Your task to perform on an android device: Go to Android settings Image 0: 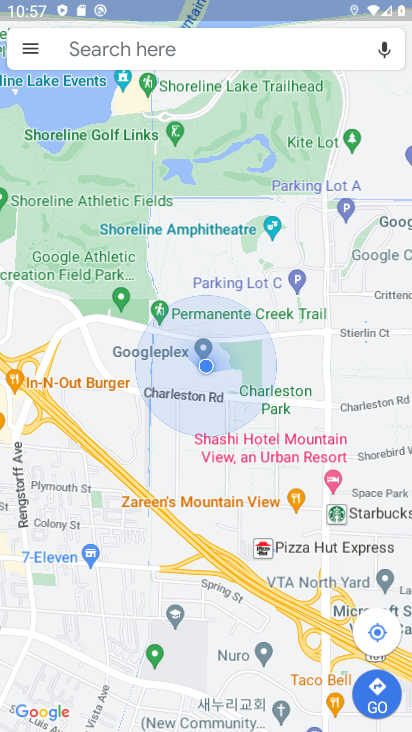
Step 0: drag from (149, 493) to (189, 212)
Your task to perform on an android device: Go to Android settings Image 1: 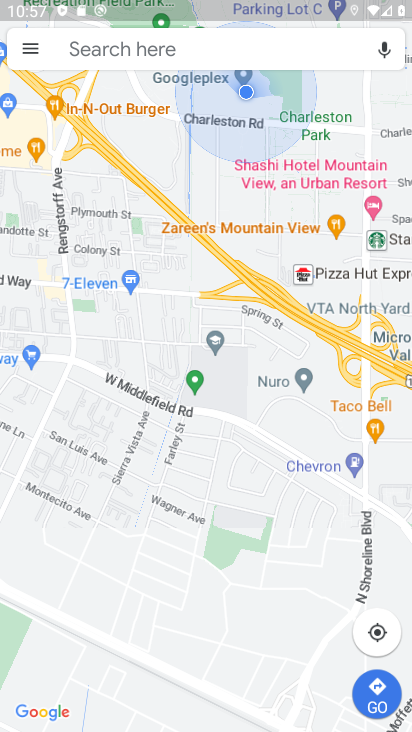
Step 1: press home button
Your task to perform on an android device: Go to Android settings Image 2: 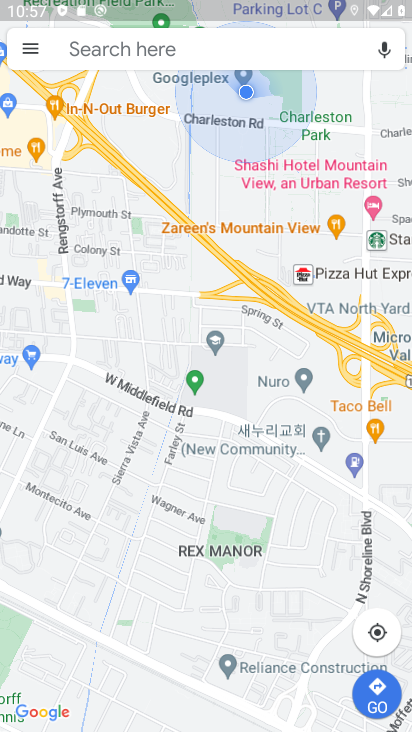
Step 2: press home button
Your task to perform on an android device: Go to Android settings Image 3: 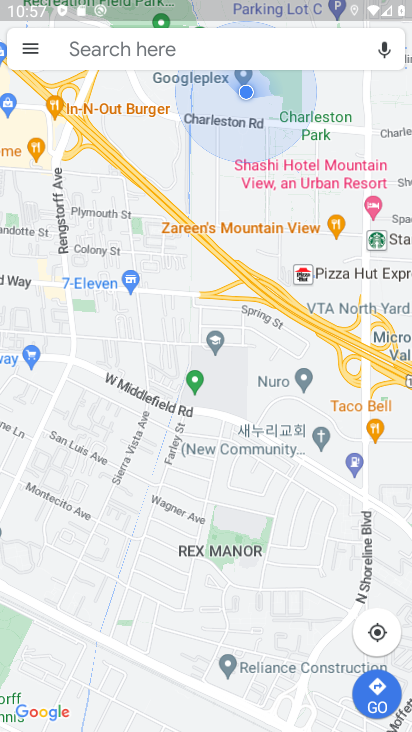
Step 3: click (301, 202)
Your task to perform on an android device: Go to Android settings Image 4: 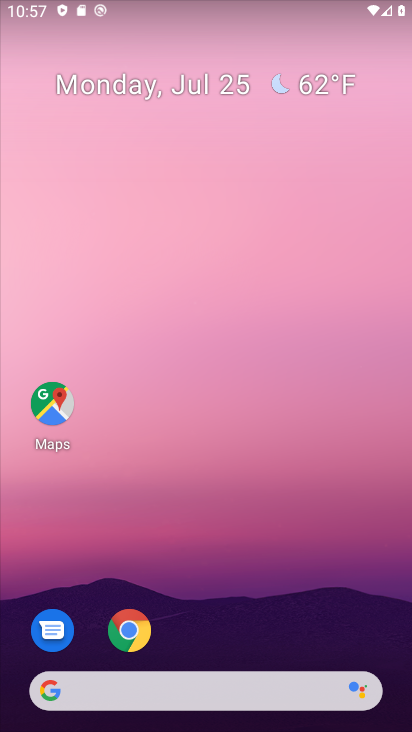
Step 4: drag from (242, 566) to (293, 236)
Your task to perform on an android device: Go to Android settings Image 5: 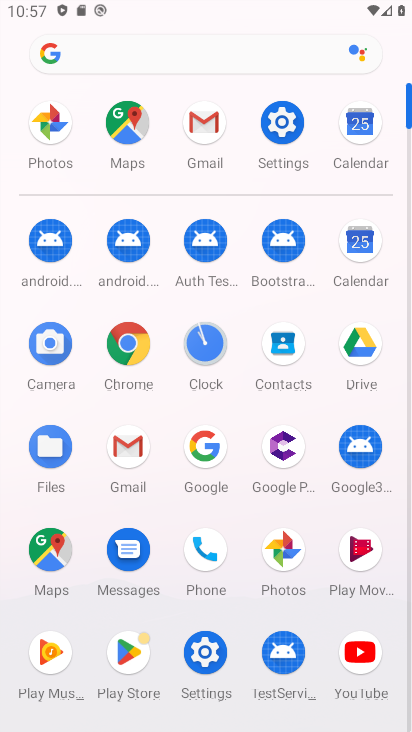
Step 5: click (288, 134)
Your task to perform on an android device: Go to Android settings Image 6: 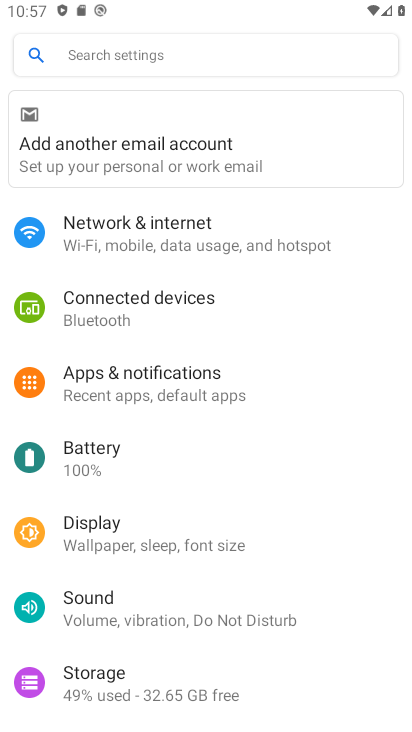
Step 6: drag from (199, 573) to (222, 94)
Your task to perform on an android device: Go to Android settings Image 7: 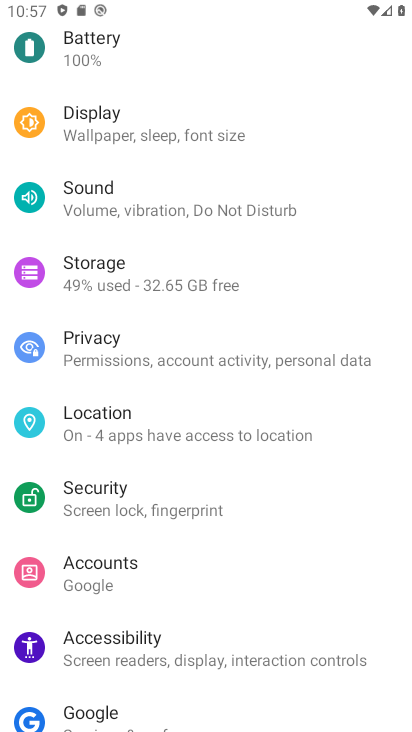
Step 7: drag from (140, 673) to (166, 223)
Your task to perform on an android device: Go to Android settings Image 8: 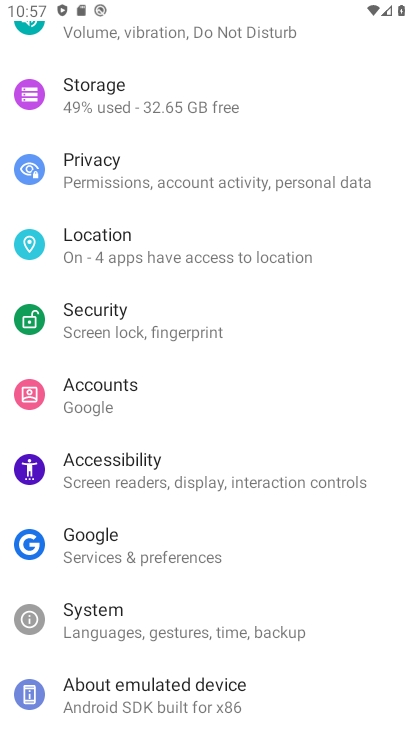
Step 8: click (128, 600)
Your task to perform on an android device: Go to Android settings Image 9: 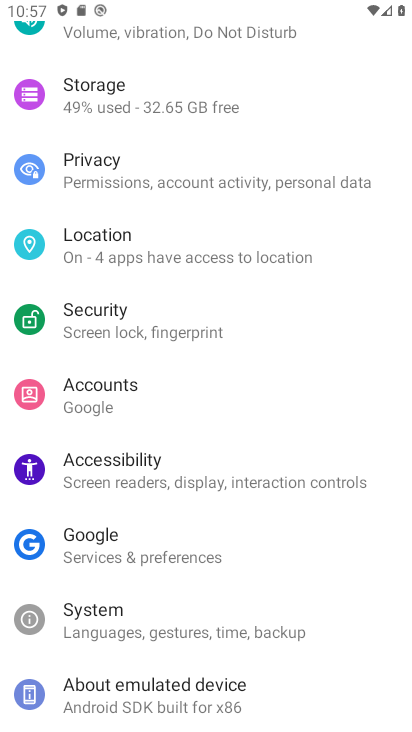
Step 9: click (128, 600)
Your task to perform on an android device: Go to Android settings Image 10: 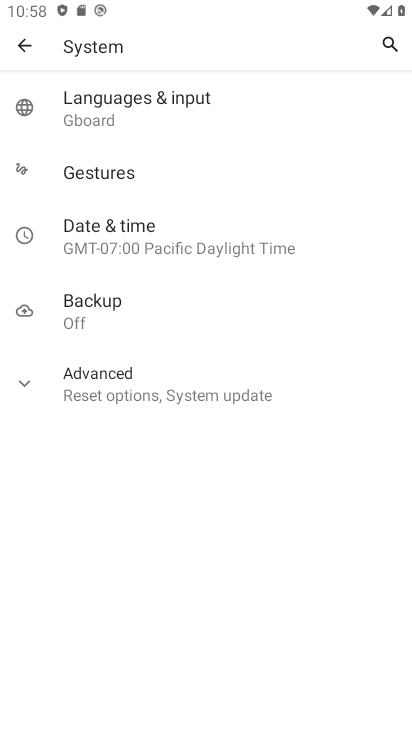
Step 10: click (119, 401)
Your task to perform on an android device: Go to Android settings Image 11: 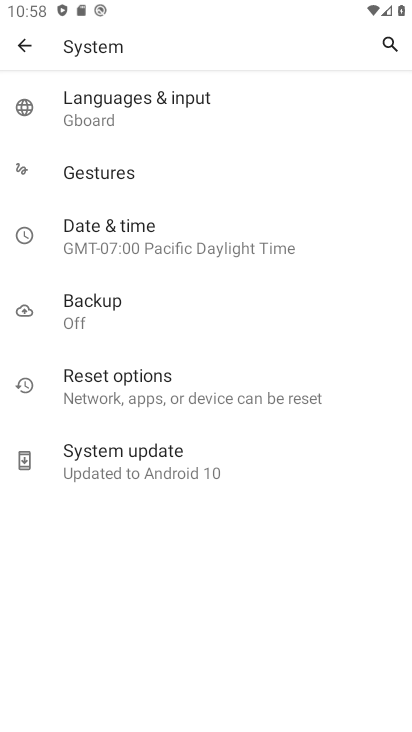
Step 11: drag from (137, 169) to (223, 580)
Your task to perform on an android device: Go to Android settings Image 12: 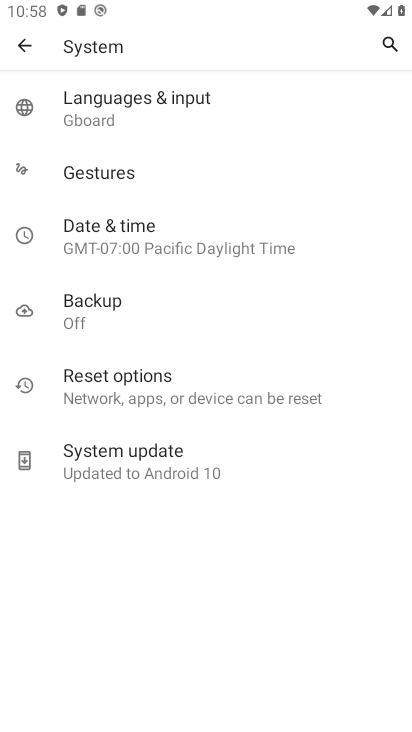
Step 12: click (27, 45)
Your task to perform on an android device: Go to Android settings Image 13: 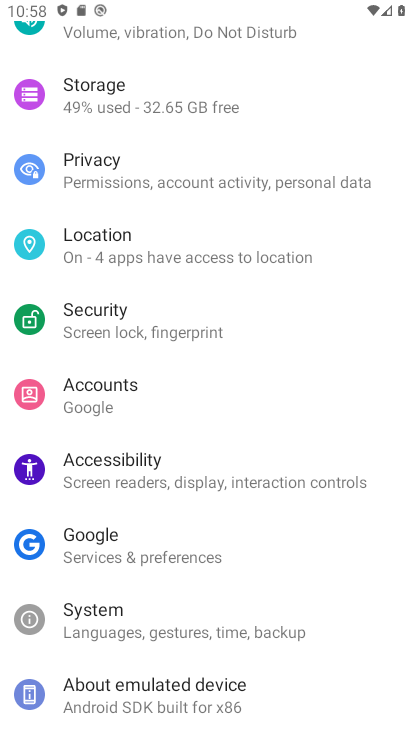
Step 13: drag from (215, 608) to (295, 127)
Your task to perform on an android device: Go to Android settings Image 14: 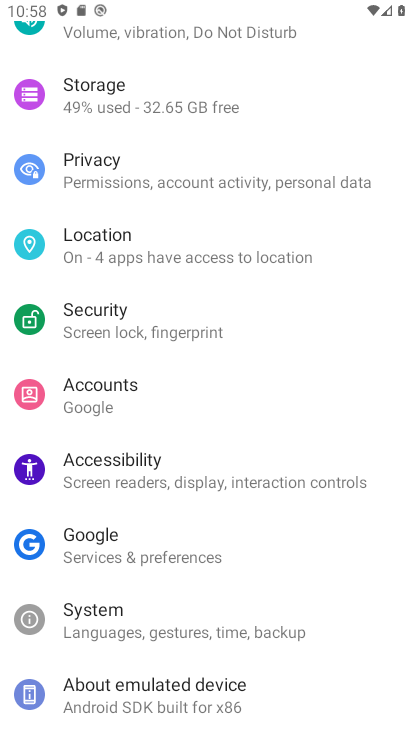
Step 14: drag from (165, 612) to (239, 270)
Your task to perform on an android device: Go to Android settings Image 15: 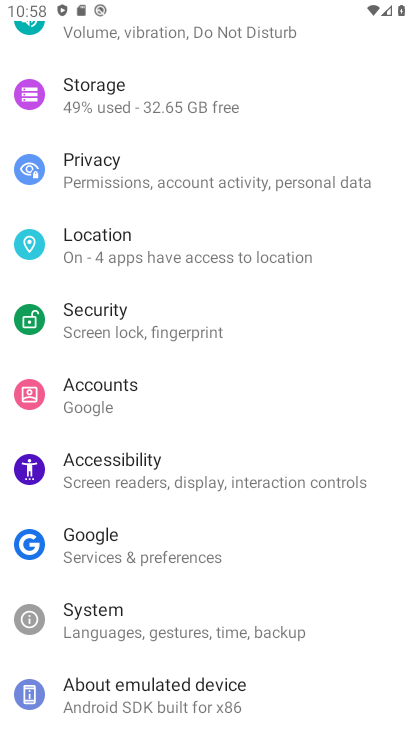
Step 15: drag from (170, 679) to (198, 316)
Your task to perform on an android device: Go to Android settings Image 16: 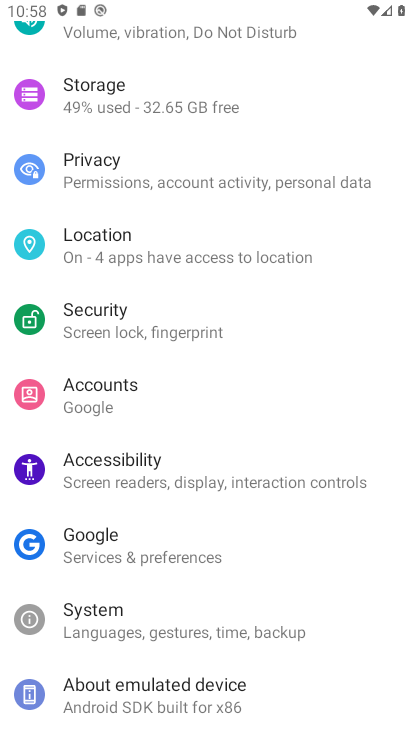
Step 16: click (181, 706)
Your task to perform on an android device: Go to Android settings Image 17: 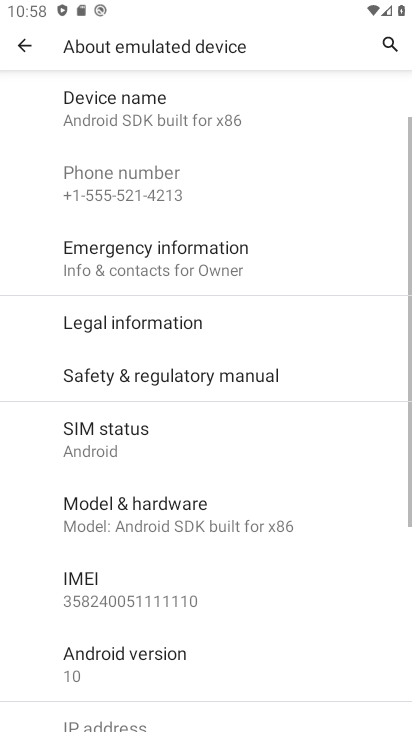
Step 17: click (178, 660)
Your task to perform on an android device: Go to Android settings Image 18: 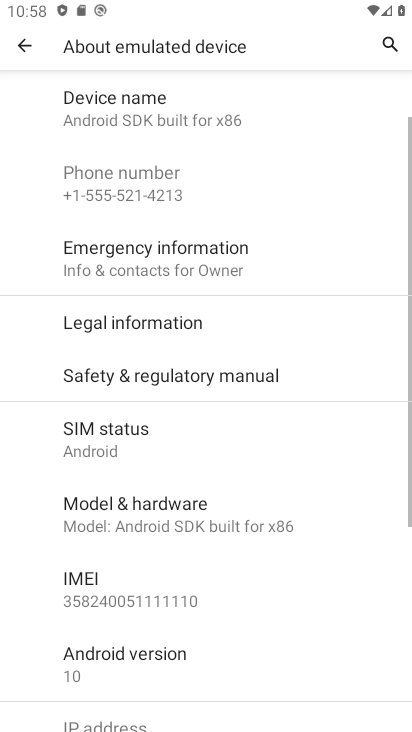
Step 18: task complete